Your task to perform on an android device: Open the phone app and click the voicemail tab. Image 0: 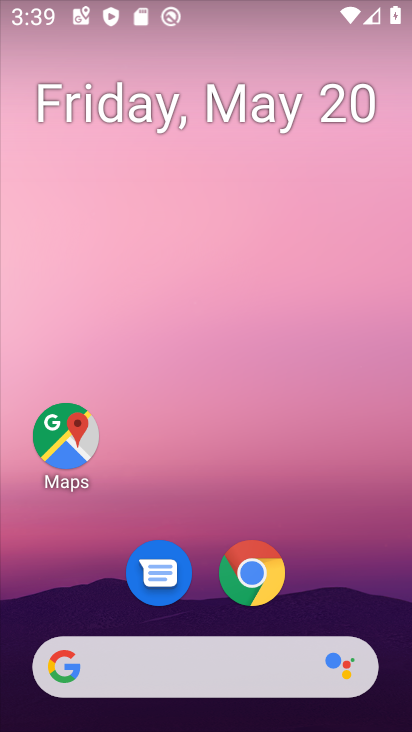
Step 0: drag from (389, 631) to (325, 97)
Your task to perform on an android device: Open the phone app and click the voicemail tab. Image 1: 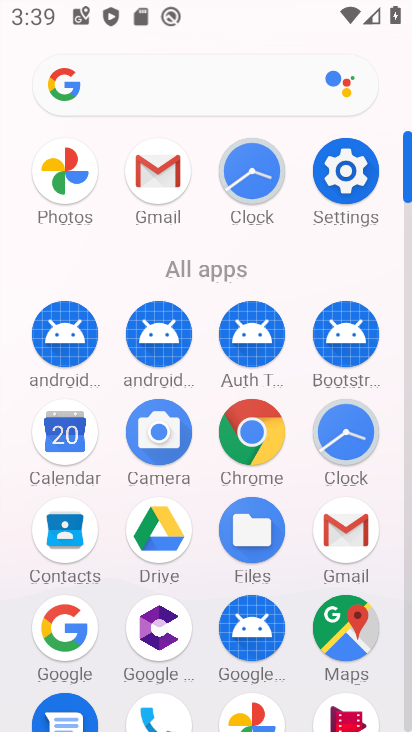
Step 1: click (411, 707)
Your task to perform on an android device: Open the phone app and click the voicemail tab. Image 2: 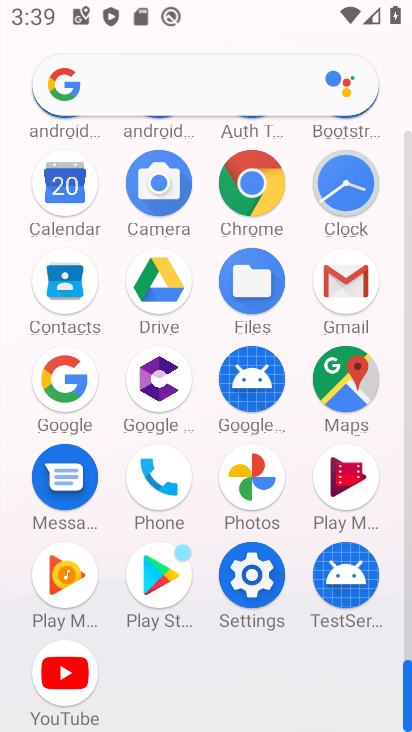
Step 2: click (160, 476)
Your task to perform on an android device: Open the phone app and click the voicemail tab. Image 3: 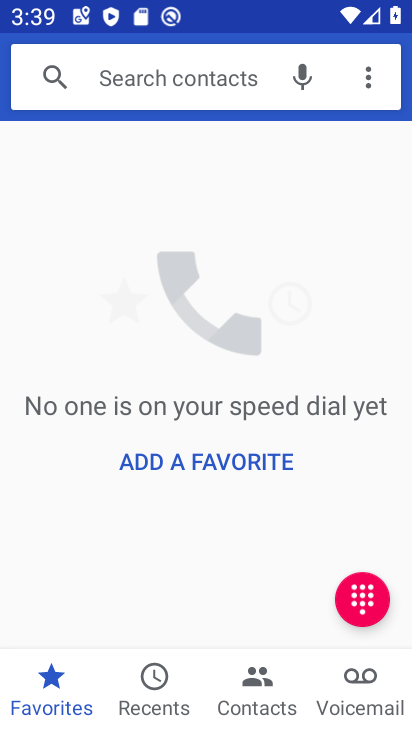
Step 3: click (353, 675)
Your task to perform on an android device: Open the phone app and click the voicemail tab. Image 4: 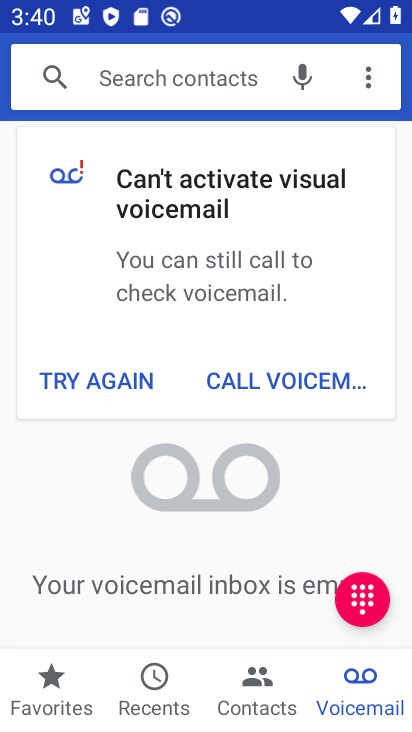
Step 4: task complete